Your task to perform on an android device: open app "Roku - Official Remote Control" Image 0: 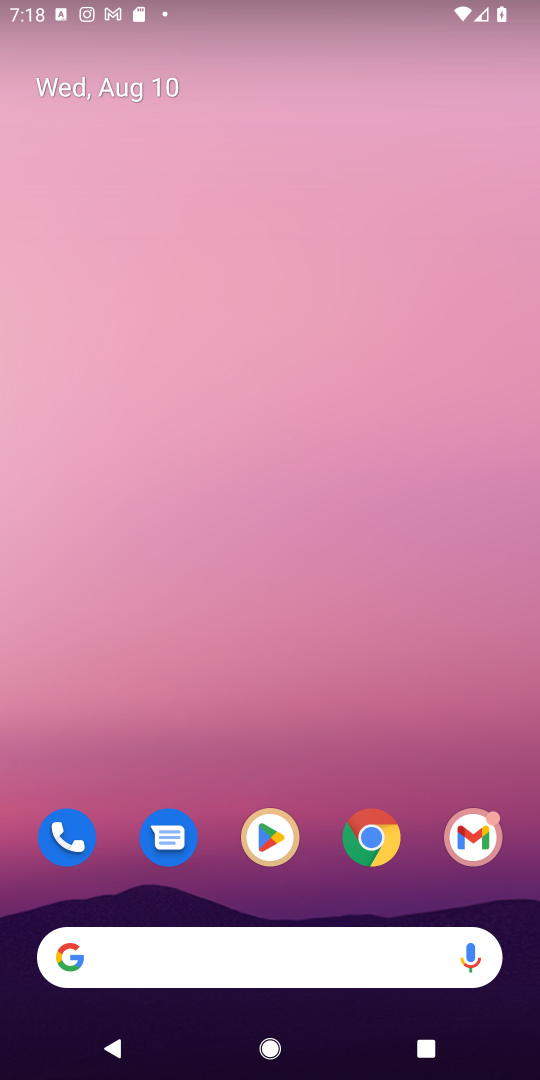
Step 0: click (266, 836)
Your task to perform on an android device: open app "Roku - Official Remote Control" Image 1: 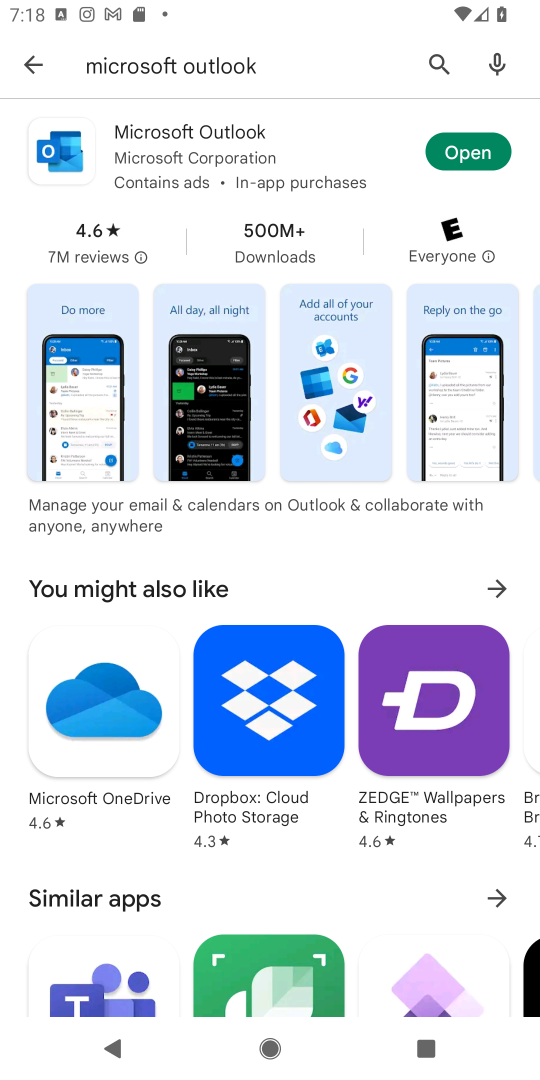
Step 1: click (434, 61)
Your task to perform on an android device: open app "Roku - Official Remote Control" Image 2: 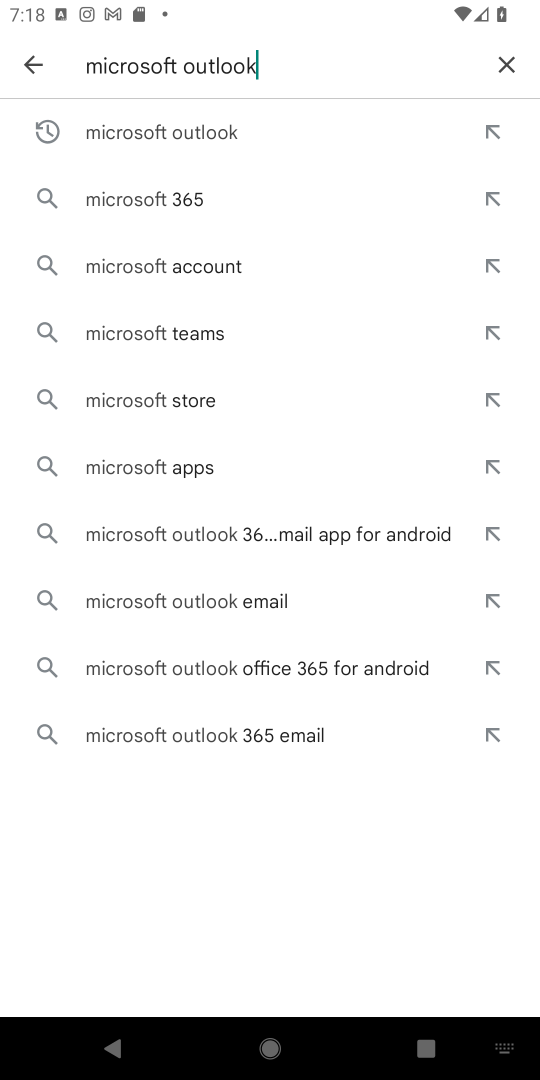
Step 2: click (501, 60)
Your task to perform on an android device: open app "Roku - Official Remote Control" Image 3: 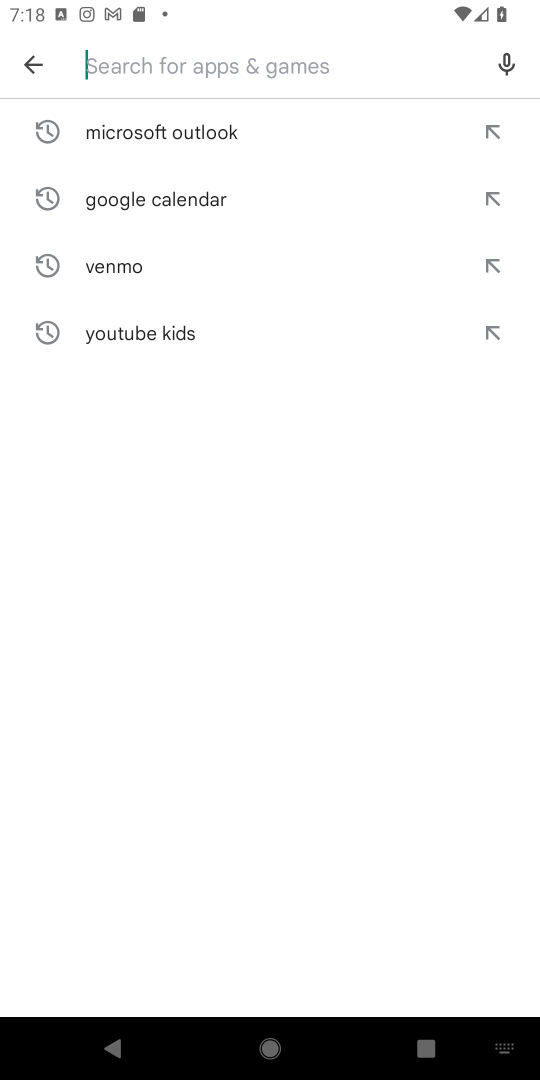
Step 3: type "Roku - Official Remote Control"
Your task to perform on an android device: open app "Roku - Official Remote Control" Image 4: 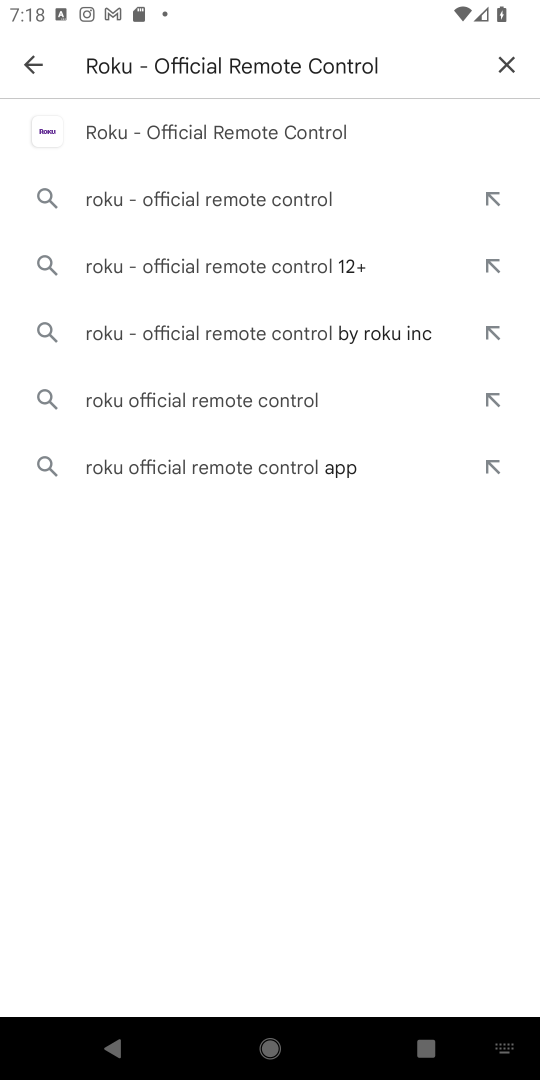
Step 4: click (288, 142)
Your task to perform on an android device: open app "Roku - Official Remote Control" Image 5: 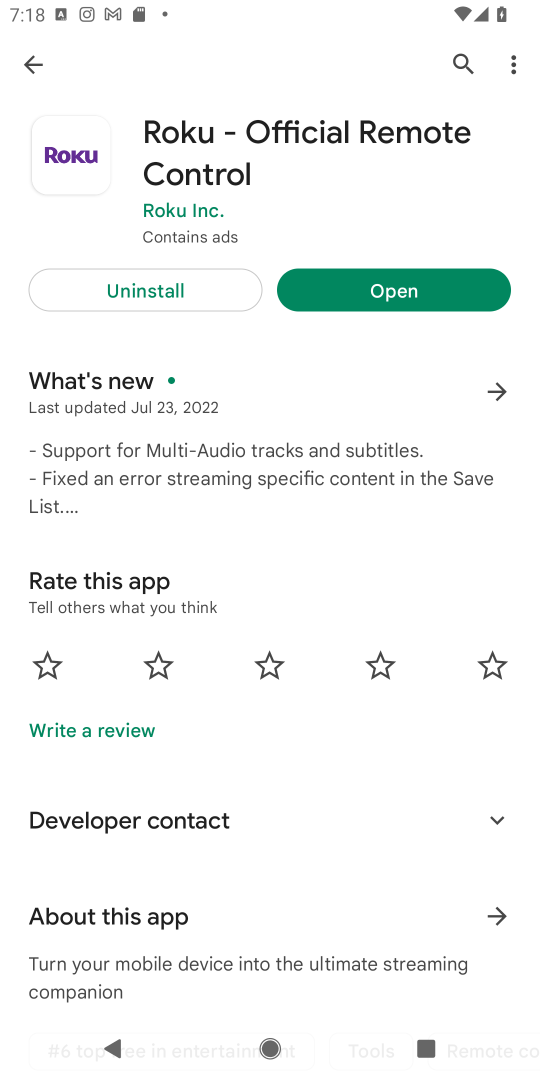
Step 5: click (398, 288)
Your task to perform on an android device: open app "Roku - Official Remote Control" Image 6: 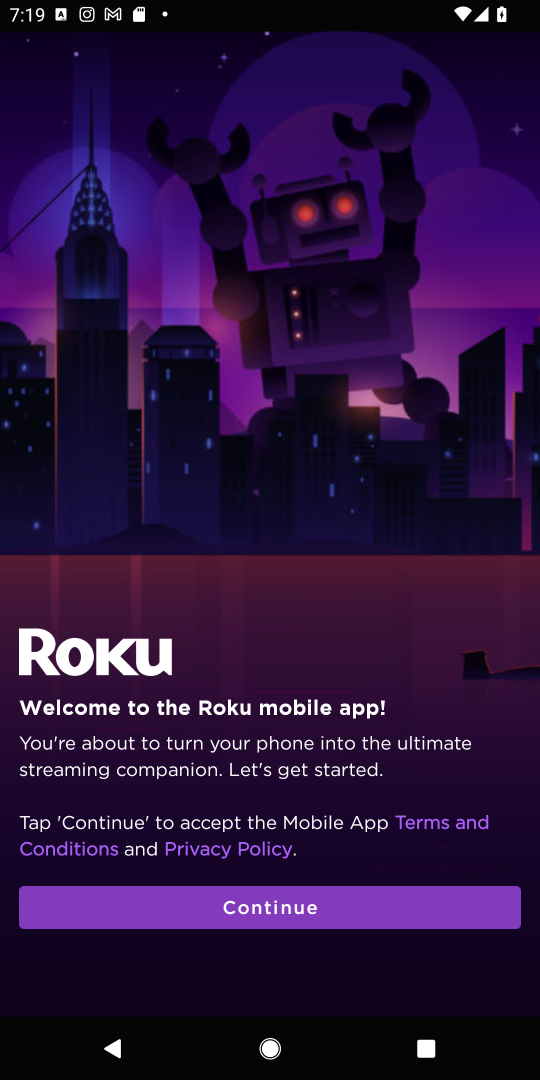
Step 6: task complete